Your task to perform on an android device: Turn on the flashlight Image 0: 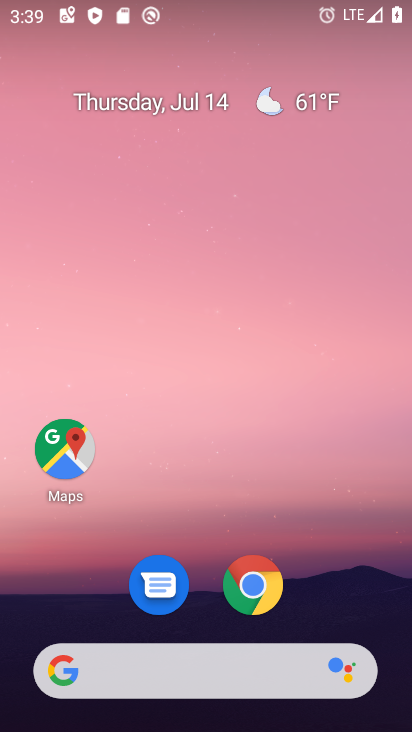
Step 0: drag from (326, 542) to (281, 53)
Your task to perform on an android device: Turn on the flashlight Image 1: 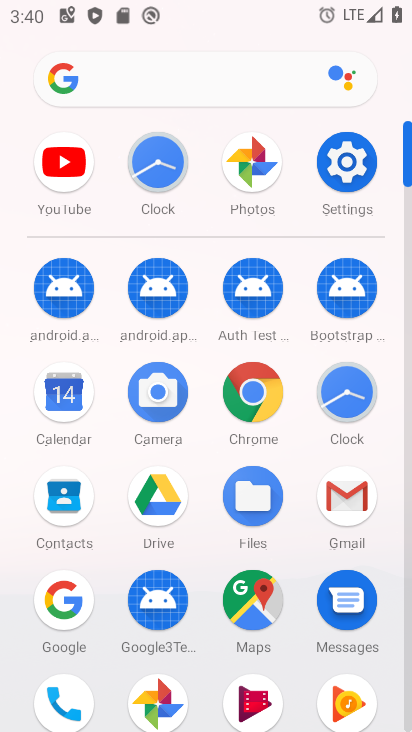
Step 1: click (364, 160)
Your task to perform on an android device: Turn on the flashlight Image 2: 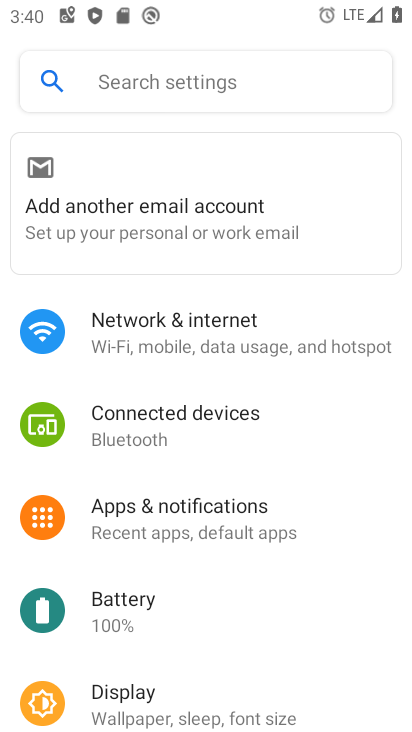
Step 2: click (258, 71)
Your task to perform on an android device: Turn on the flashlight Image 3: 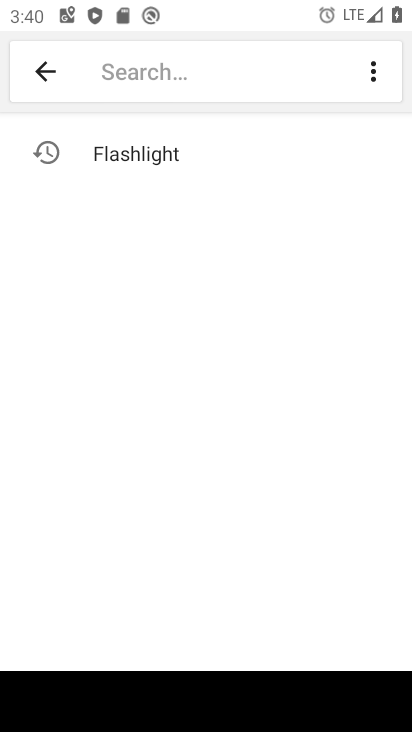
Step 3: click (160, 156)
Your task to perform on an android device: Turn on the flashlight Image 4: 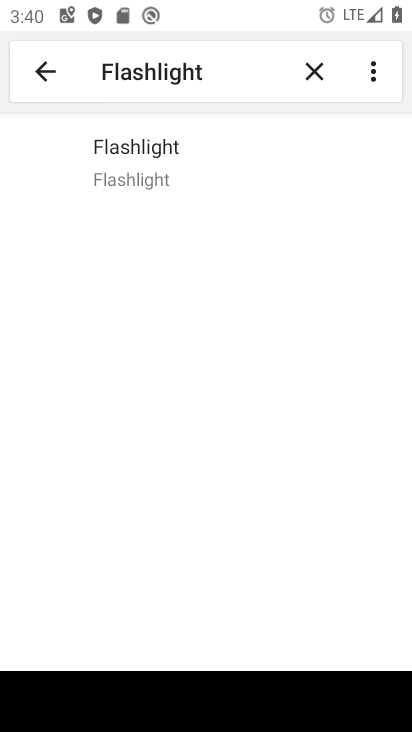
Step 4: click (160, 156)
Your task to perform on an android device: Turn on the flashlight Image 5: 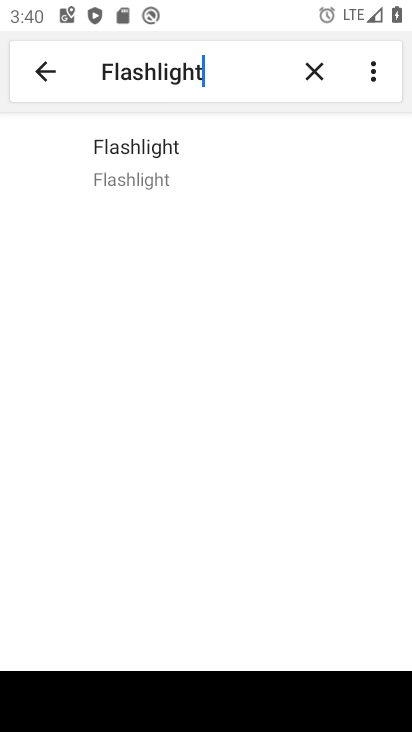
Step 5: click (160, 156)
Your task to perform on an android device: Turn on the flashlight Image 6: 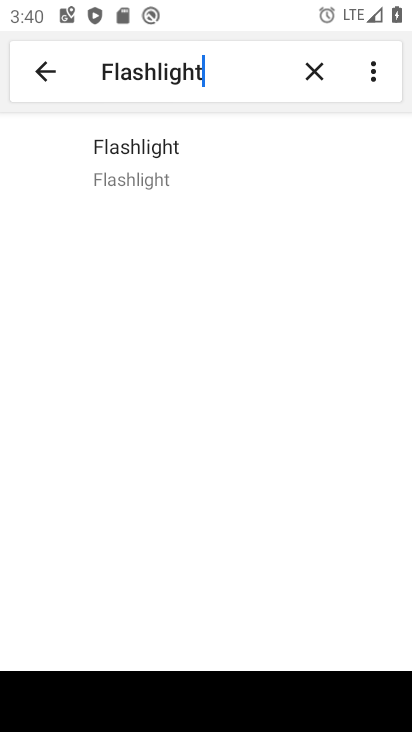
Step 6: task complete